Your task to perform on an android device: turn smart compose on in the gmail app Image 0: 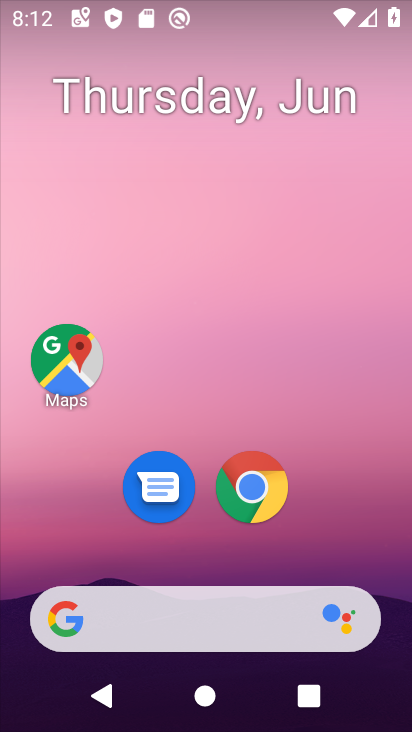
Step 0: drag from (228, 517) to (222, 190)
Your task to perform on an android device: turn smart compose on in the gmail app Image 1: 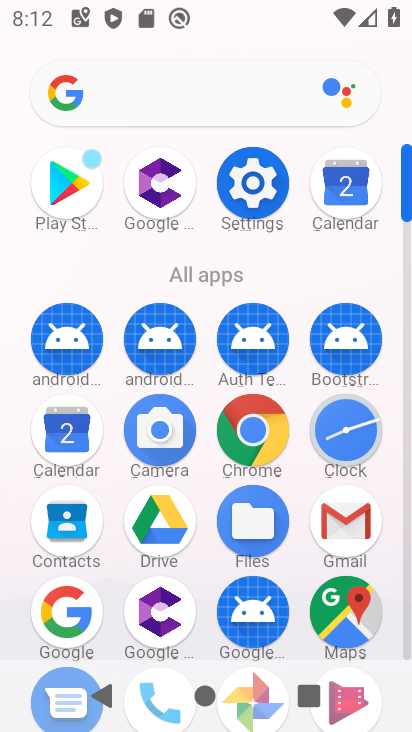
Step 1: click (367, 530)
Your task to perform on an android device: turn smart compose on in the gmail app Image 2: 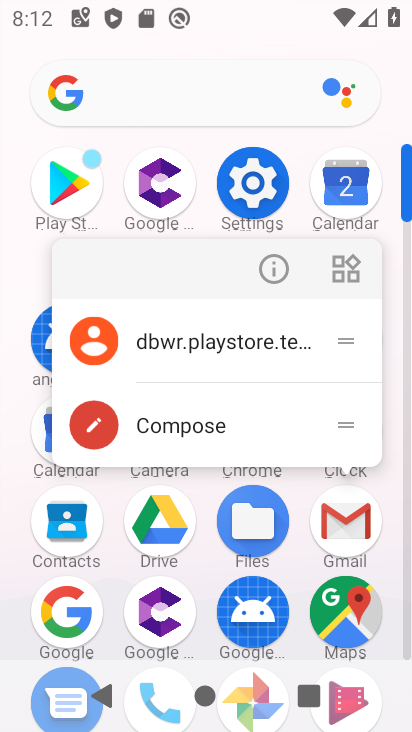
Step 2: click (269, 278)
Your task to perform on an android device: turn smart compose on in the gmail app Image 3: 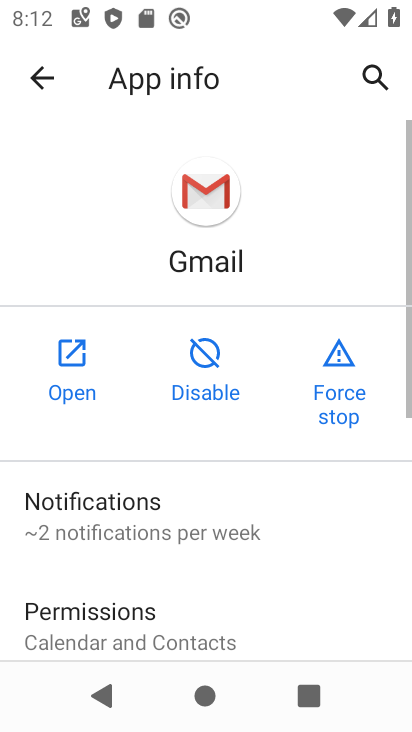
Step 3: click (95, 347)
Your task to perform on an android device: turn smart compose on in the gmail app Image 4: 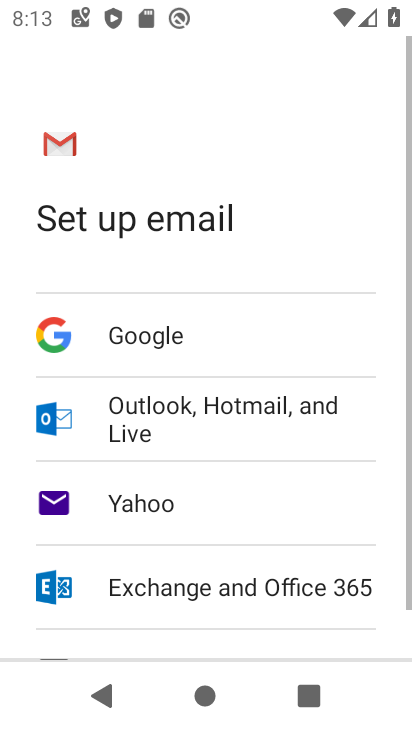
Step 4: drag from (209, 608) to (318, 64)
Your task to perform on an android device: turn smart compose on in the gmail app Image 5: 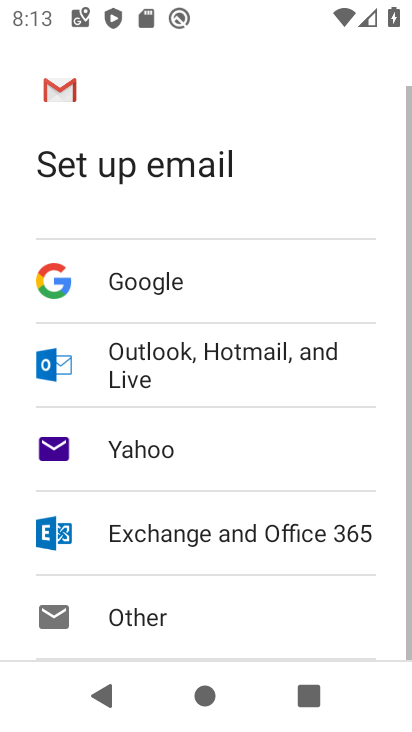
Step 5: click (161, 278)
Your task to perform on an android device: turn smart compose on in the gmail app Image 6: 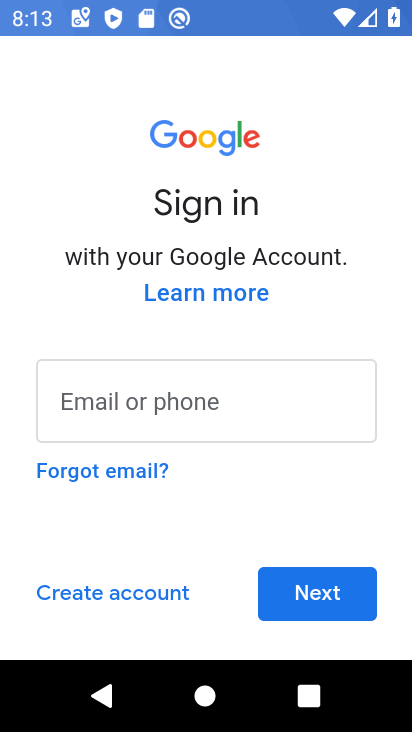
Step 6: press home button
Your task to perform on an android device: turn smart compose on in the gmail app Image 7: 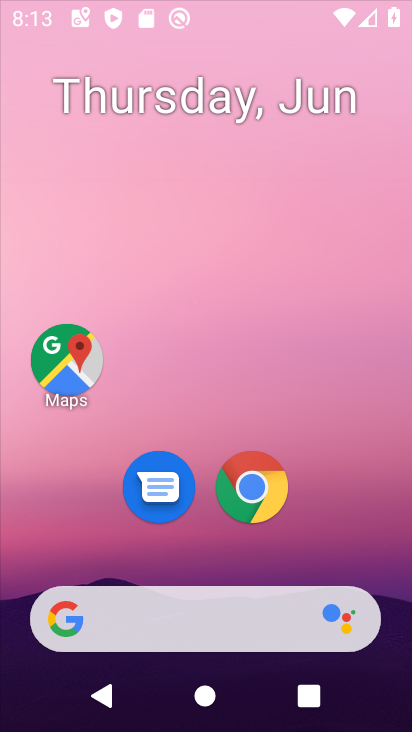
Step 7: drag from (207, 568) to (229, 299)
Your task to perform on an android device: turn smart compose on in the gmail app Image 8: 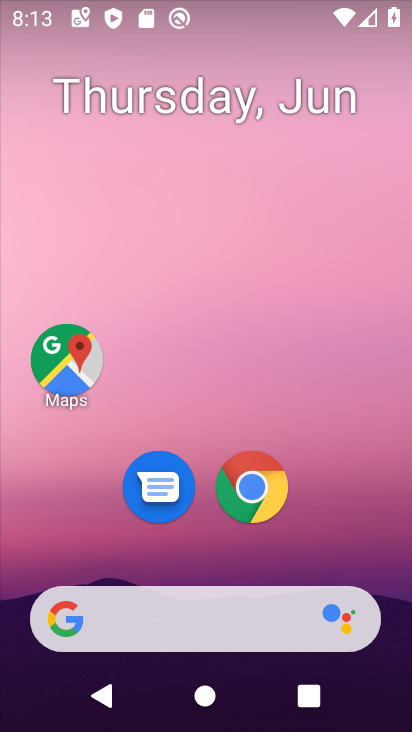
Step 8: drag from (179, 553) to (234, 13)
Your task to perform on an android device: turn smart compose on in the gmail app Image 9: 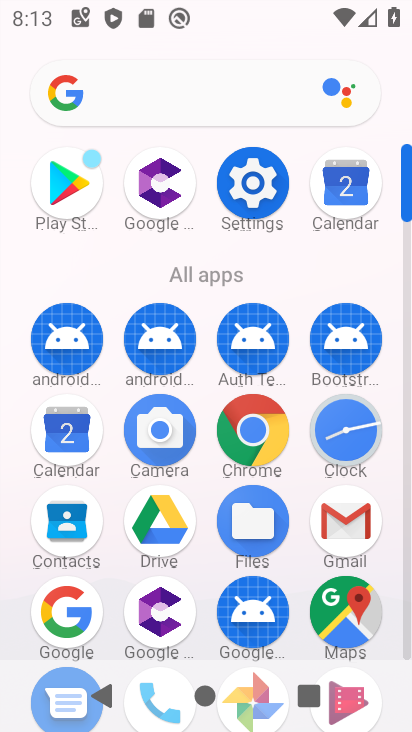
Step 9: click (337, 522)
Your task to perform on an android device: turn smart compose on in the gmail app Image 10: 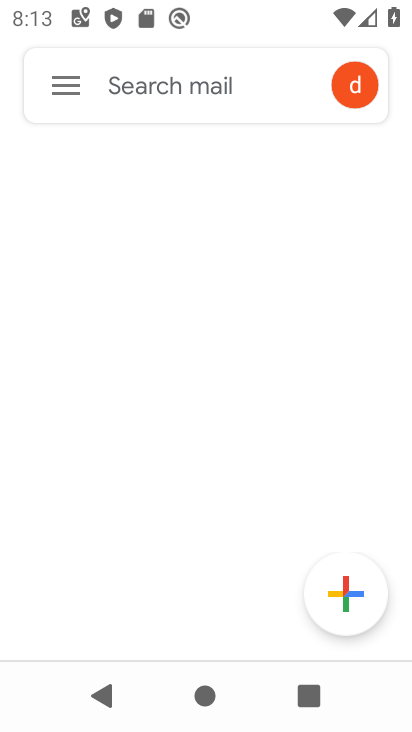
Step 10: click (52, 80)
Your task to perform on an android device: turn smart compose on in the gmail app Image 11: 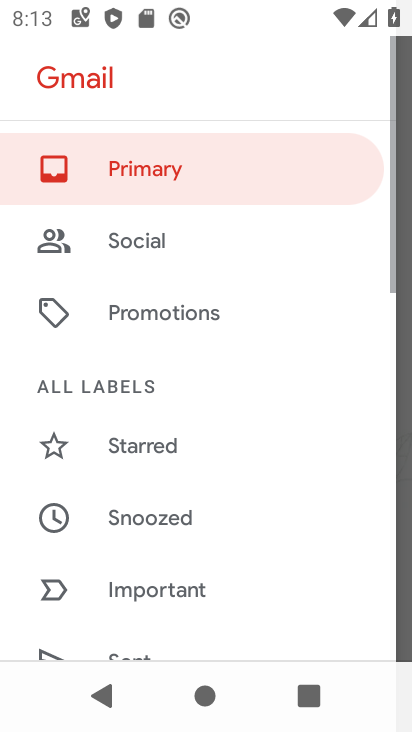
Step 11: drag from (206, 619) to (362, 102)
Your task to perform on an android device: turn smart compose on in the gmail app Image 12: 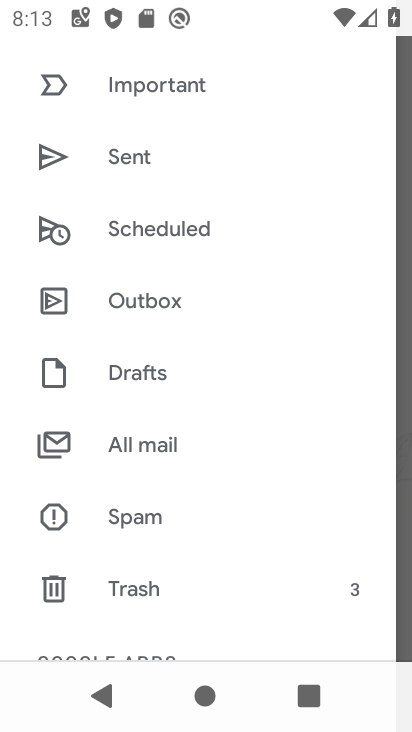
Step 12: drag from (187, 571) to (187, 0)
Your task to perform on an android device: turn smart compose on in the gmail app Image 13: 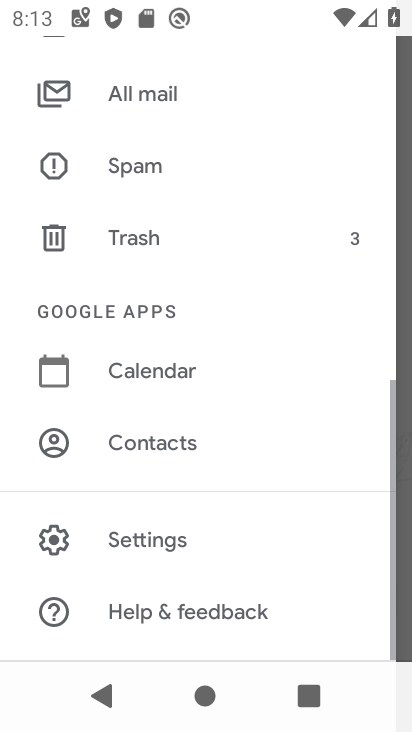
Step 13: click (125, 557)
Your task to perform on an android device: turn smart compose on in the gmail app Image 14: 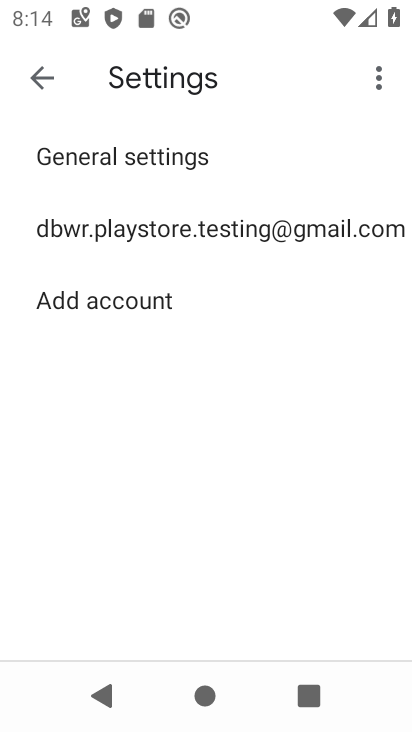
Step 14: click (142, 219)
Your task to perform on an android device: turn smart compose on in the gmail app Image 15: 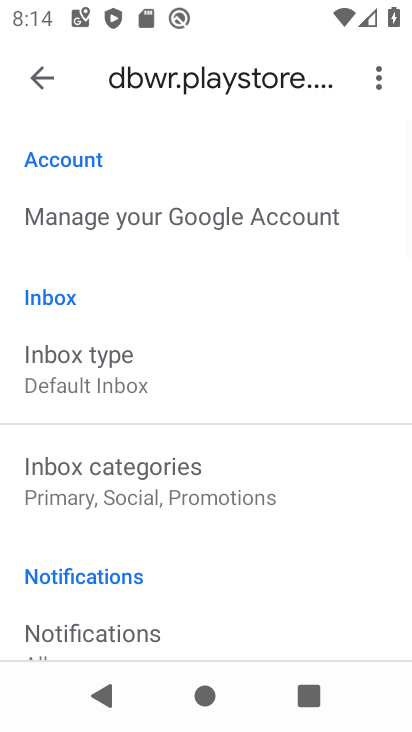
Step 15: task complete